Your task to perform on an android device: What is the recent news? Image 0: 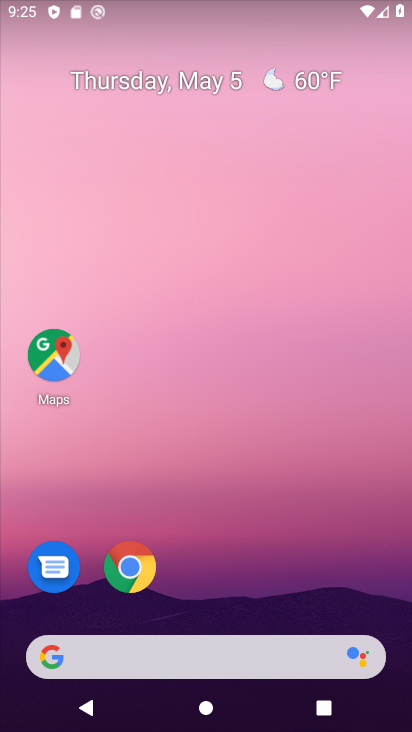
Step 0: drag from (212, 598) to (211, 147)
Your task to perform on an android device: What is the recent news? Image 1: 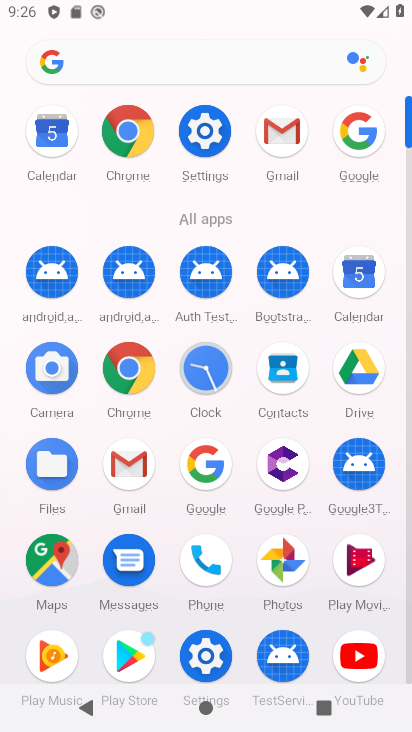
Step 1: click (205, 448)
Your task to perform on an android device: What is the recent news? Image 2: 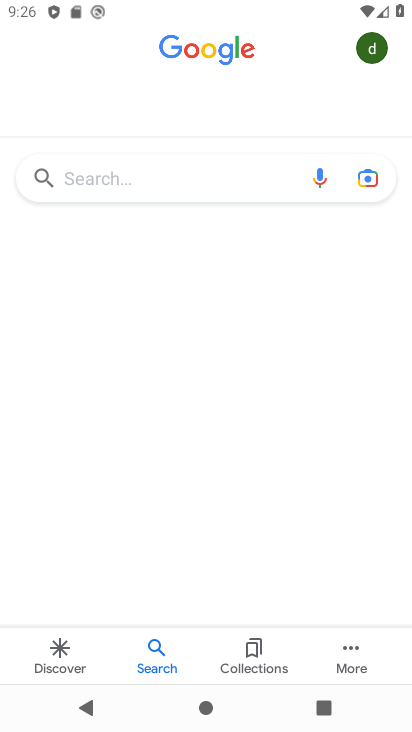
Step 2: click (220, 177)
Your task to perform on an android device: What is the recent news? Image 3: 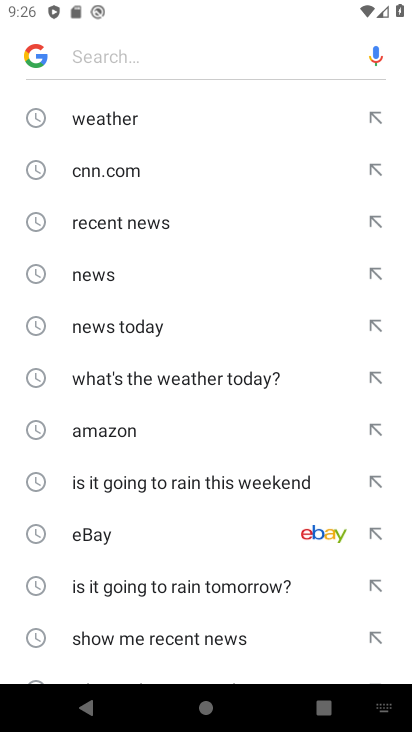
Step 3: click (142, 227)
Your task to perform on an android device: What is the recent news? Image 4: 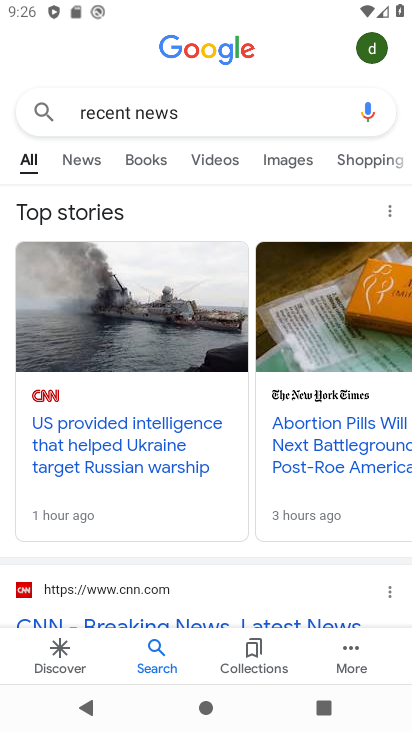
Step 4: task complete